Your task to perform on an android device: Show me productivity apps on the Play Store Image 0: 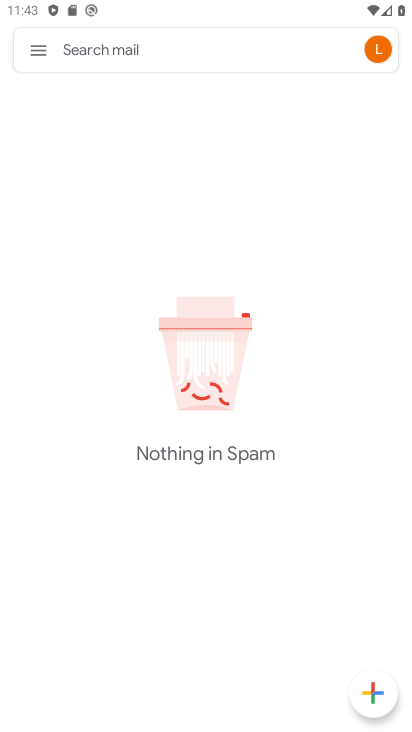
Step 0: press home button
Your task to perform on an android device: Show me productivity apps on the Play Store Image 1: 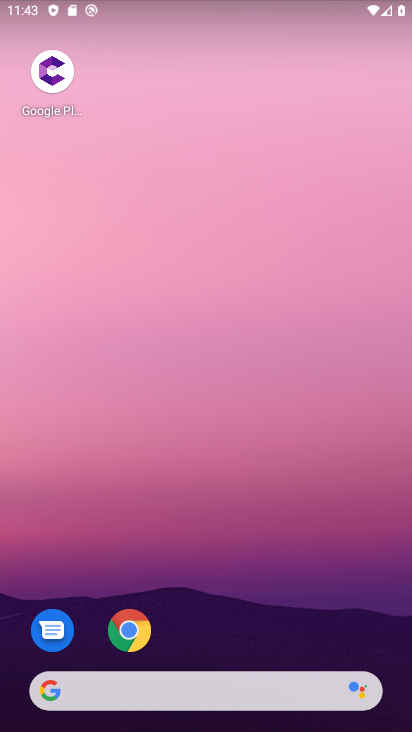
Step 1: drag from (236, 656) to (297, 82)
Your task to perform on an android device: Show me productivity apps on the Play Store Image 2: 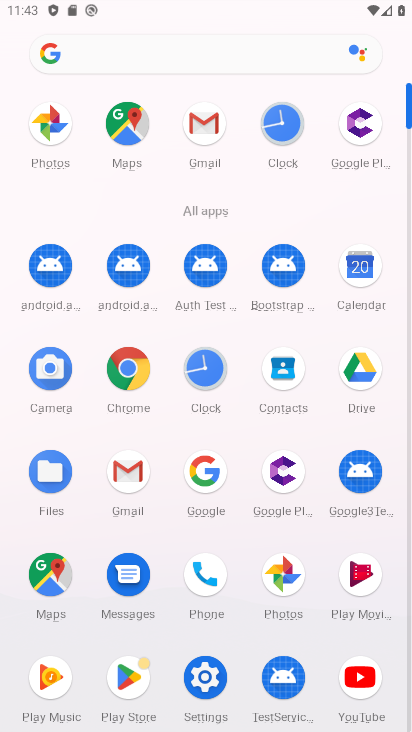
Step 2: click (117, 681)
Your task to perform on an android device: Show me productivity apps on the Play Store Image 3: 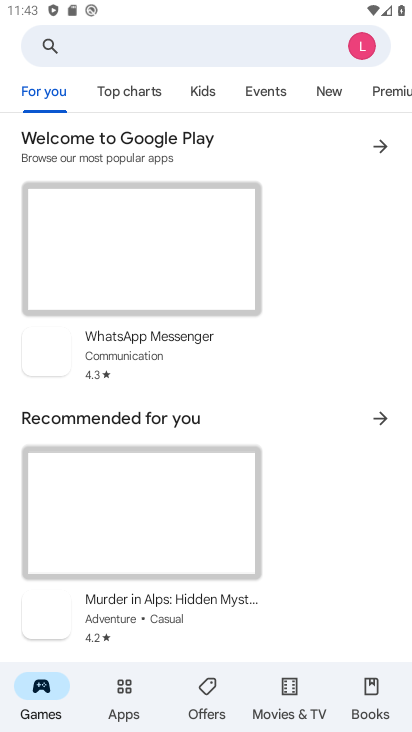
Step 3: click (130, 692)
Your task to perform on an android device: Show me productivity apps on the Play Store Image 4: 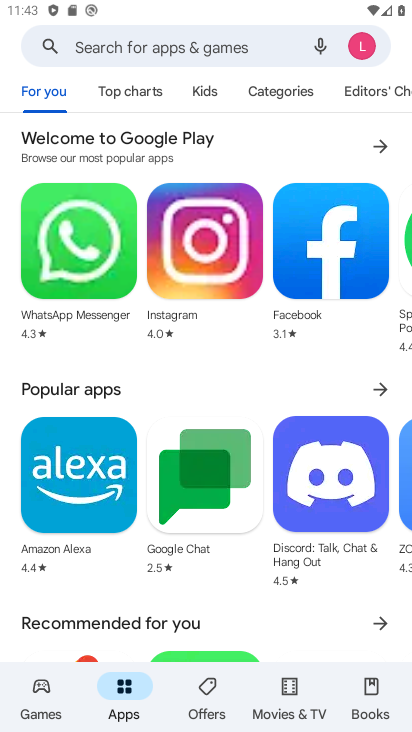
Step 4: click (278, 95)
Your task to perform on an android device: Show me productivity apps on the Play Store Image 5: 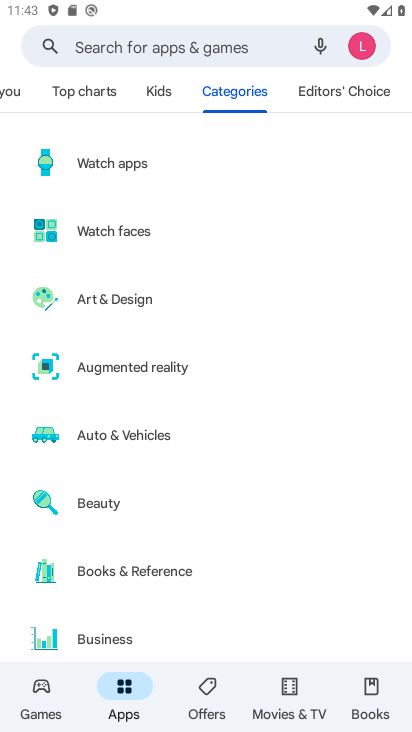
Step 5: drag from (106, 646) to (93, 203)
Your task to perform on an android device: Show me productivity apps on the Play Store Image 6: 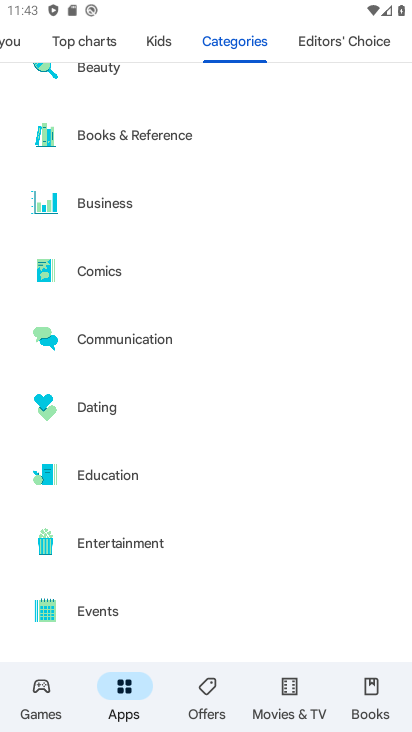
Step 6: drag from (168, 524) to (200, 63)
Your task to perform on an android device: Show me productivity apps on the Play Store Image 7: 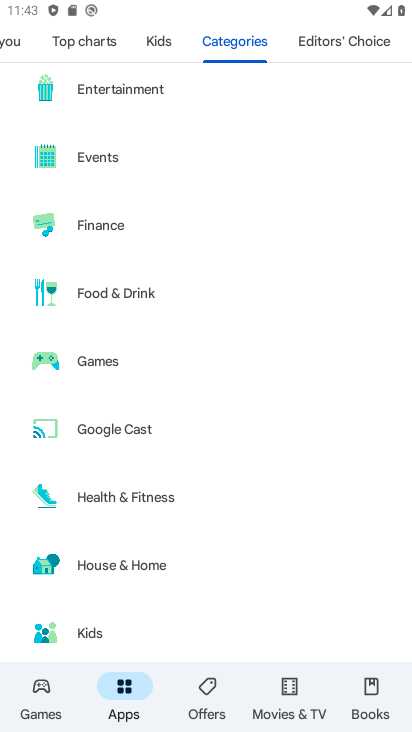
Step 7: drag from (153, 553) to (173, 9)
Your task to perform on an android device: Show me productivity apps on the Play Store Image 8: 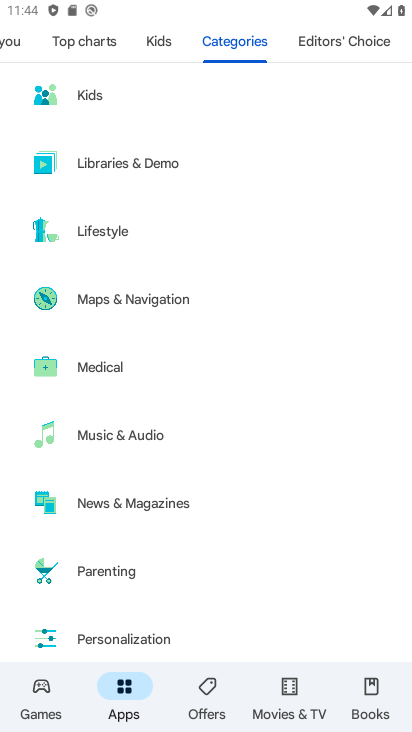
Step 8: drag from (170, 544) to (150, 83)
Your task to perform on an android device: Show me productivity apps on the Play Store Image 9: 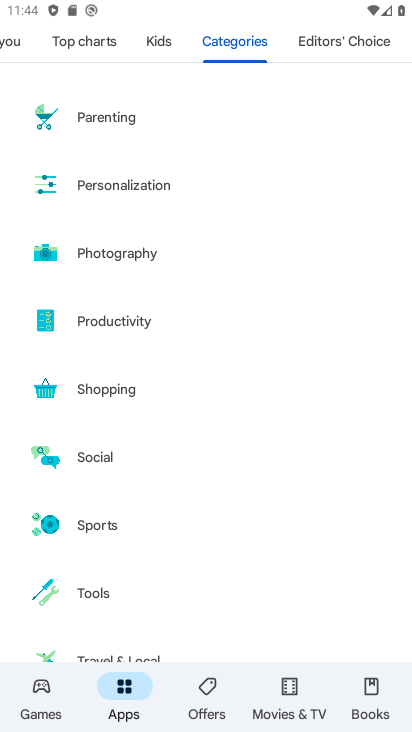
Step 9: click (104, 329)
Your task to perform on an android device: Show me productivity apps on the Play Store Image 10: 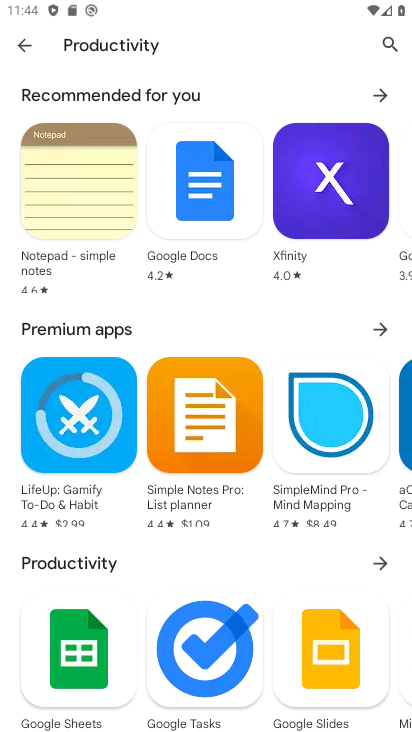
Step 10: task complete